Your task to perform on an android device: add a contact in the contacts app Image 0: 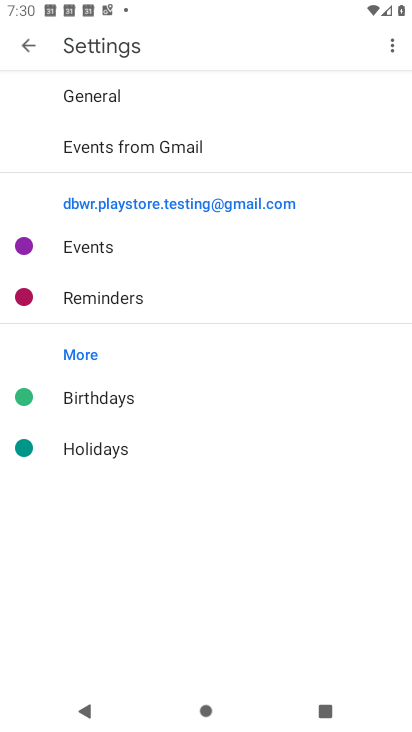
Step 0: press home button
Your task to perform on an android device: add a contact in the contacts app Image 1: 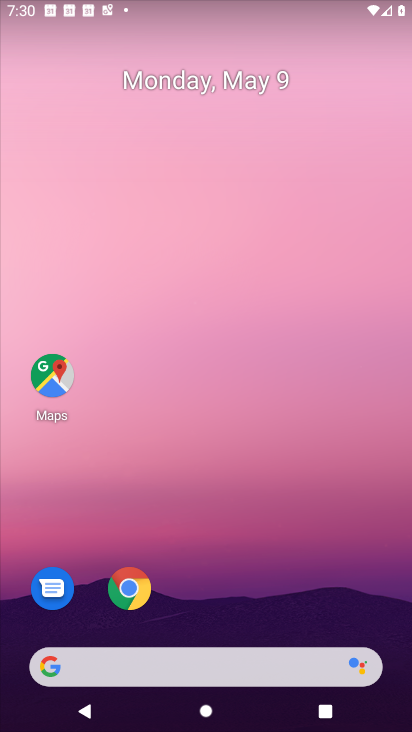
Step 1: drag from (161, 668) to (362, 67)
Your task to perform on an android device: add a contact in the contacts app Image 2: 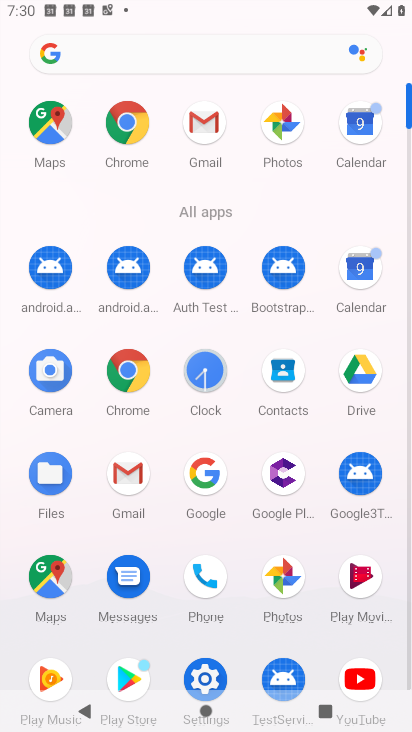
Step 2: click (286, 376)
Your task to perform on an android device: add a contact in the contacts app Image 3: 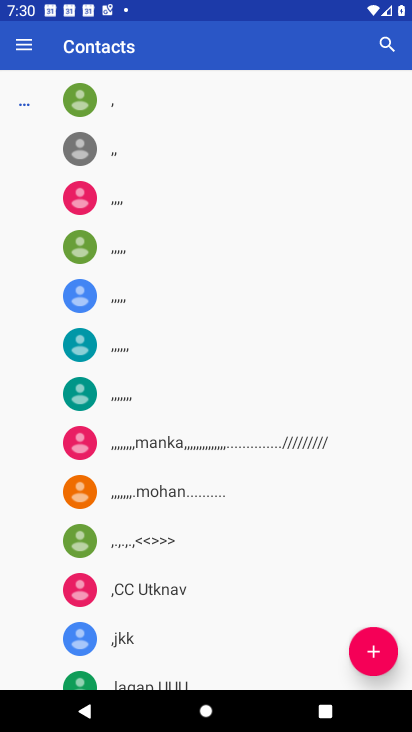
Step 3: click (378, 652)
Your task to perform on an android device: add a contact in the contacts app Image 4: 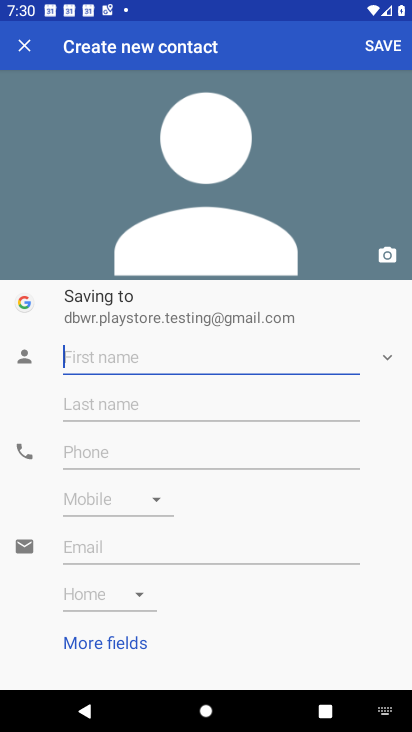
Step 4: click (64, 354)
Your task to perform on an android device: add a contact in the contacts app Image 5: 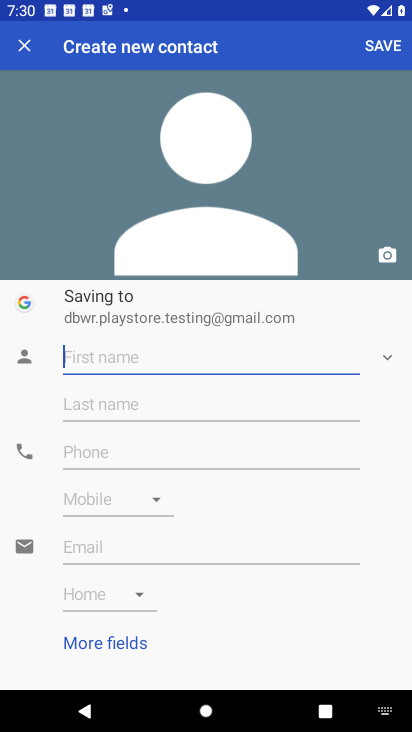
Step 5: type "vtyhgfj"
Your task to perform on an android device: add a contact in the contacts app Image 6: 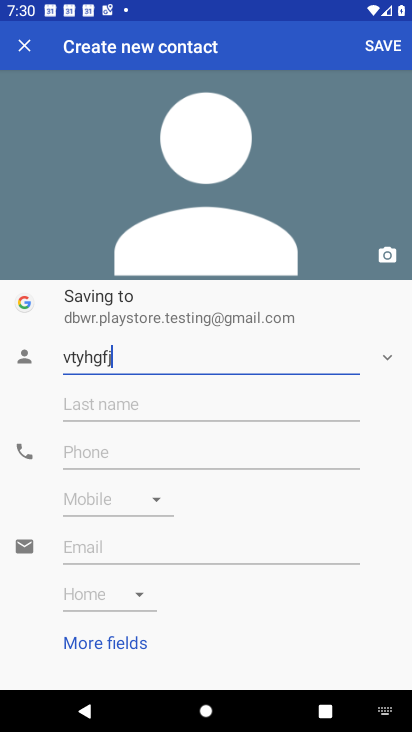
Step 6: click (84, 444)
Your task to perform on an android device: add a contact in the contacts app Image 7: 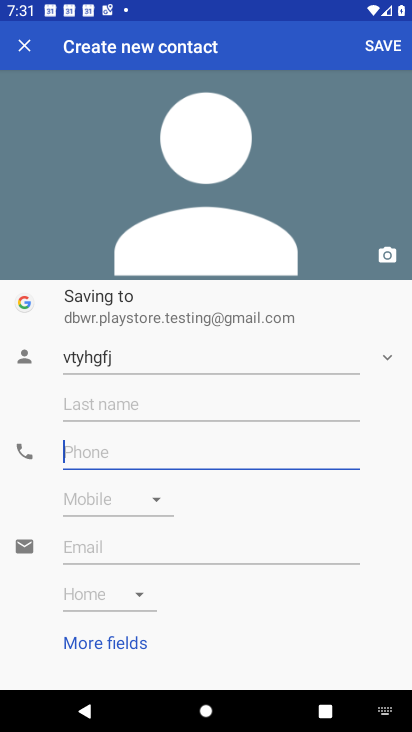
Step 7: type "3425"
Your task to perform on an android device: add a contact in the contacts app Image 8: 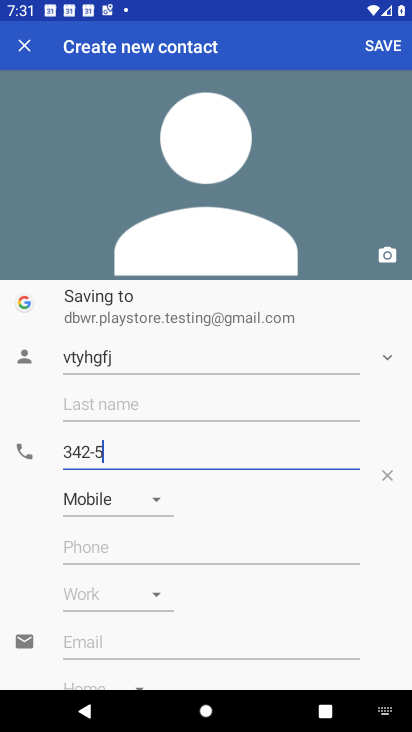
Step 8: click (373, 48)
Your task to perform on an android device: add a contact in the contacts app Image 9: 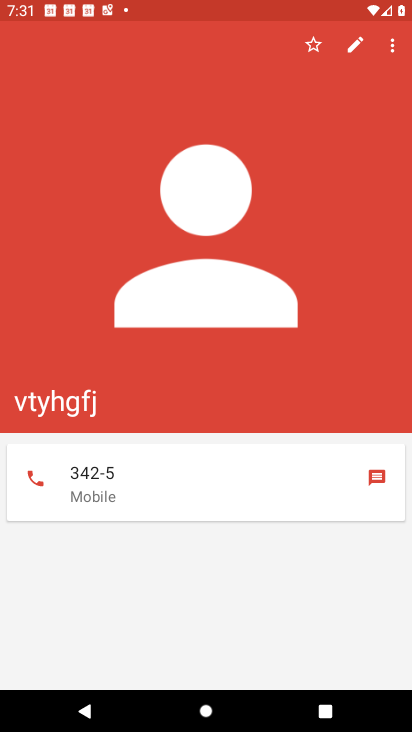
Step 9: task complete